Your task to perform on an android device: Search for seafood restaurants on Google Maps Image 0: 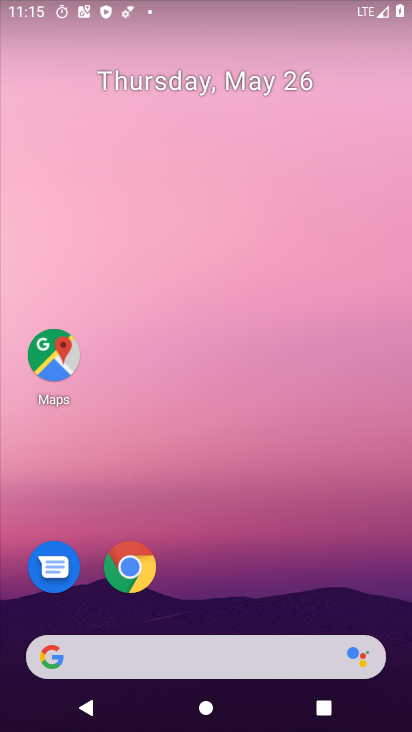
Step 0: click (61, 331)
Your task to perform on an android device: Search for seafood restaurants on Google Maps Image 1: 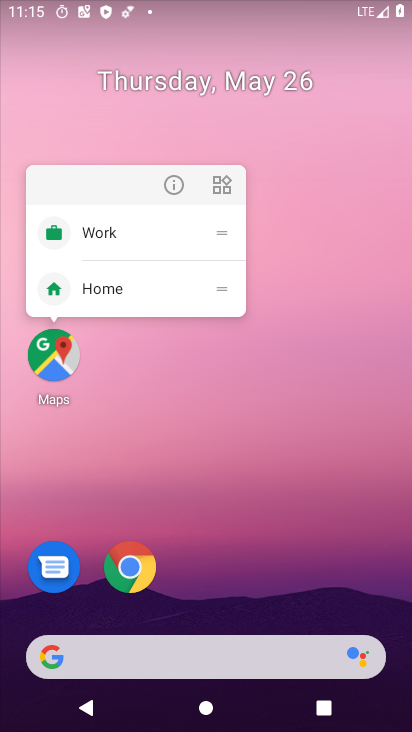
Step 1: click (47, 367)
Your task to perform on an android device: Search for seafood restaurants on Google Maps Image 2: 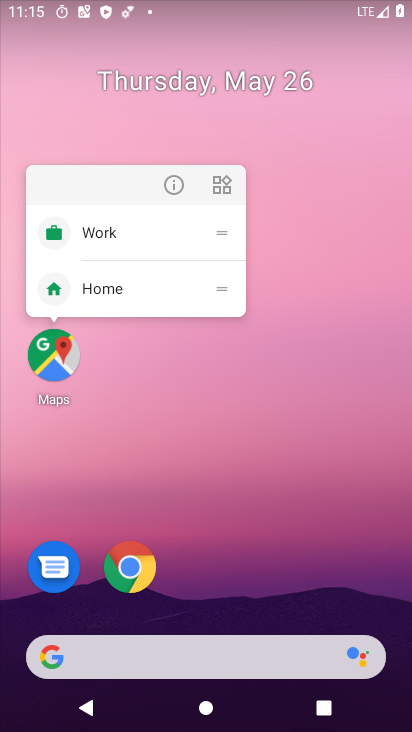
Step 2: click (47, 367)
Your task to perform on an android device: Search for seafood restaurants on Google Maps Image 3: 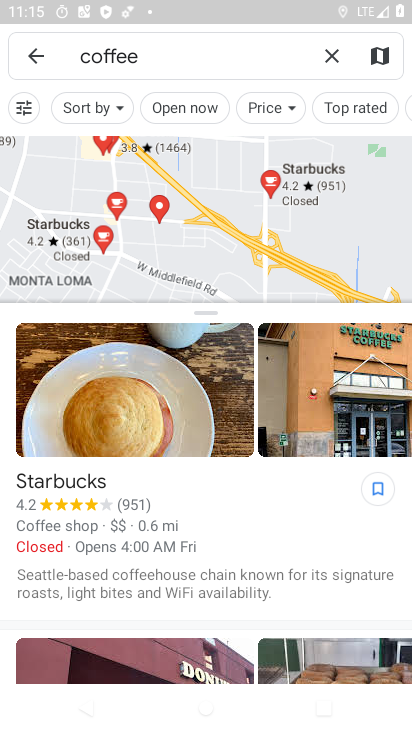
Step 3: click (332, 57)
Your task to perform on an android device: Search for seafood restaurants on Google Maps Image 4: 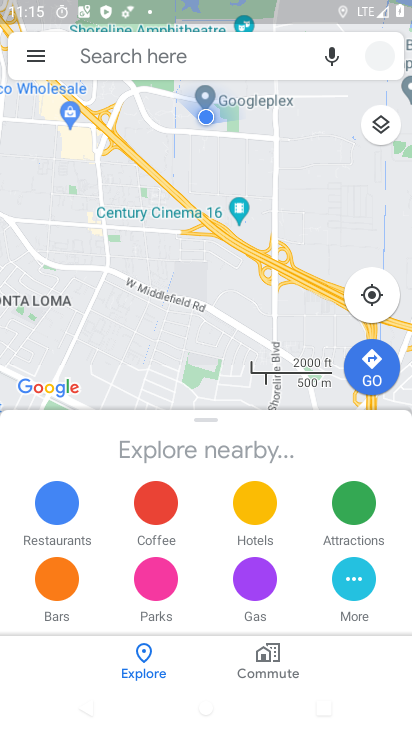
Step 4: click (222, 56)
Your task to perform on an android device: Search for seafood restaurants on Google Maps Image 5: 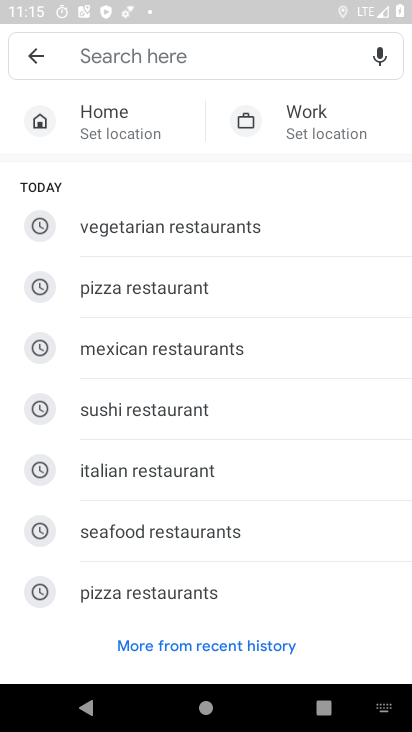
Step 5: click (225, 534)
Your task to perform on an android device: Search for seafood restaurants on Google Maps Image 6: 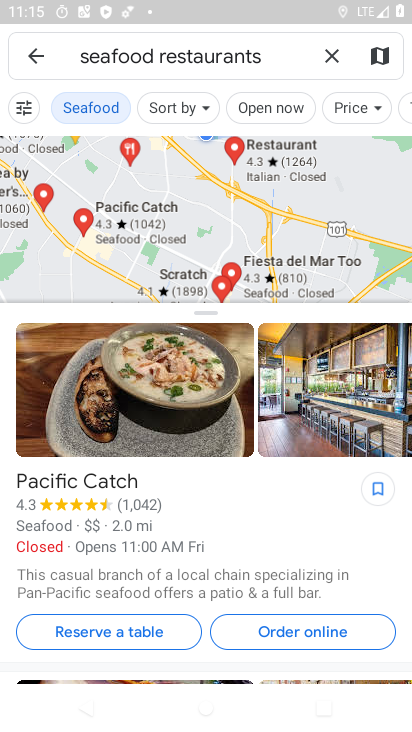
Step 6: task complete